Your task to perform on an android device: change text size in settings app Image 0: 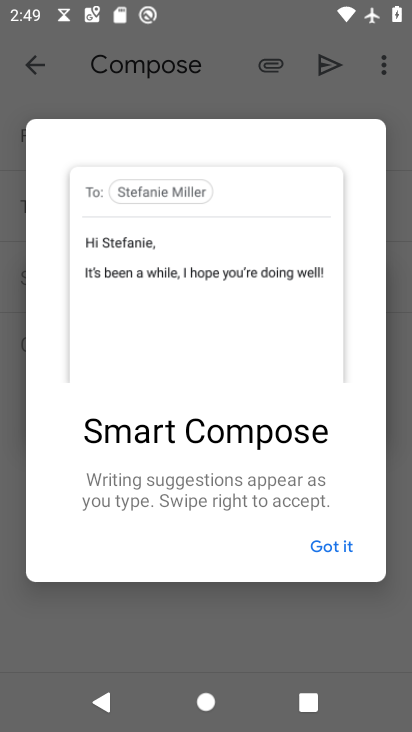
Step 0: press home button
Your task to perform on an android device: change text size in settings app Image 1: 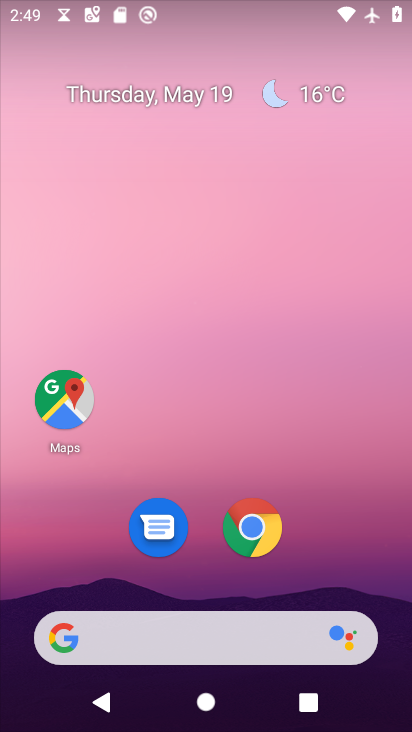
Step 1: drag from (313, 454) to (205, 70)
Your task to perform on an android device: change text size in settings app Image 2: 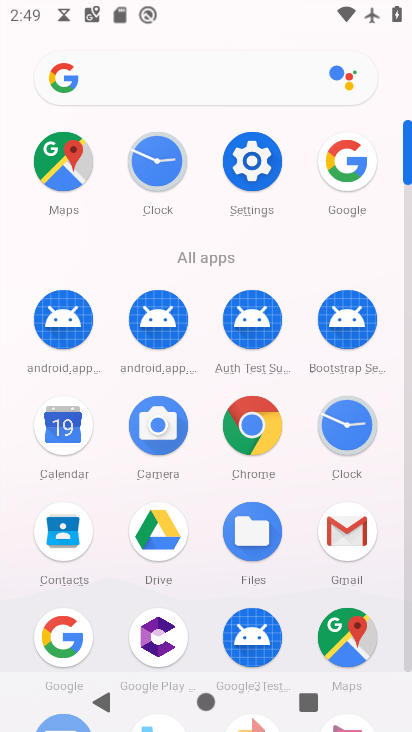
Step 2: click (266, 181)
Your task to perform on an android device: change text size in settings app Image 3: 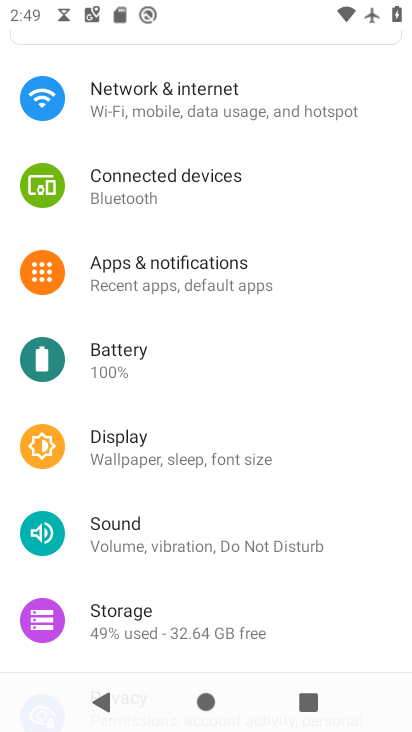
Step 3: click (146, 447)
Your task to perform on an android device: change text size in settings app Image 4: 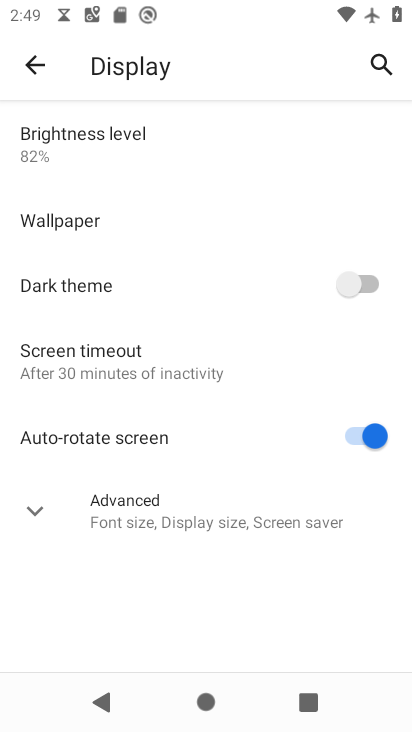
Step 4: click (133, 496)
Your task to perform on an android device: change text size in settings app Image 5: 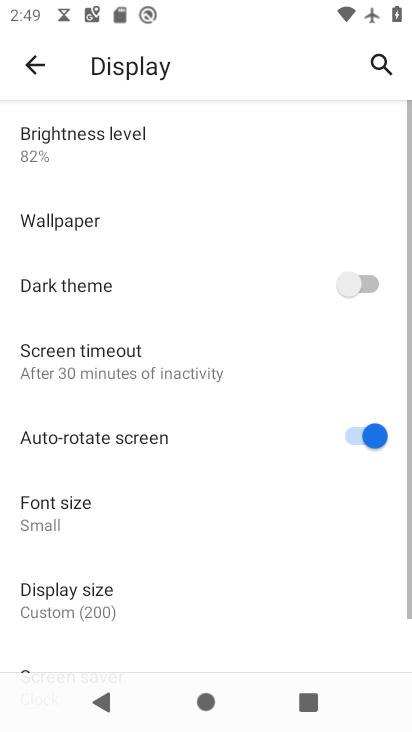
Step 5: click (132, 516)
Your task to perform on an android device: change text size in settings app Image 6: 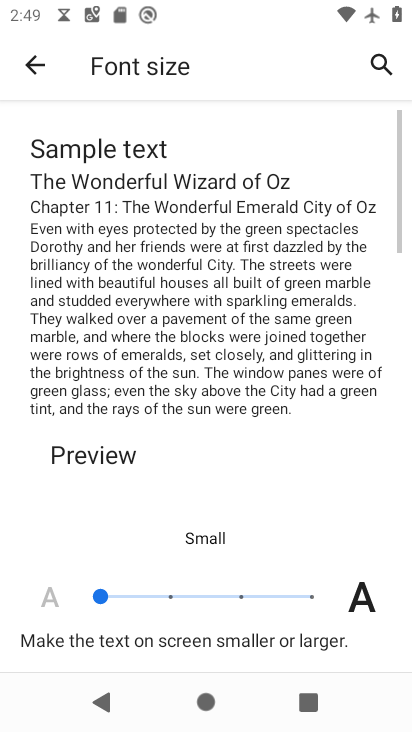
Step 6: click (172, 596)
Your task to perform on an android device: change text size in settings app Image 7: 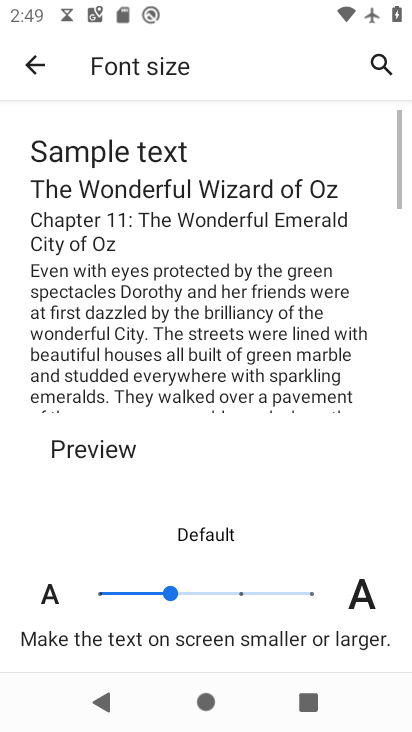
Step 7: task complete